Your task to perform on an android device: change alarm snooze length Image 0: 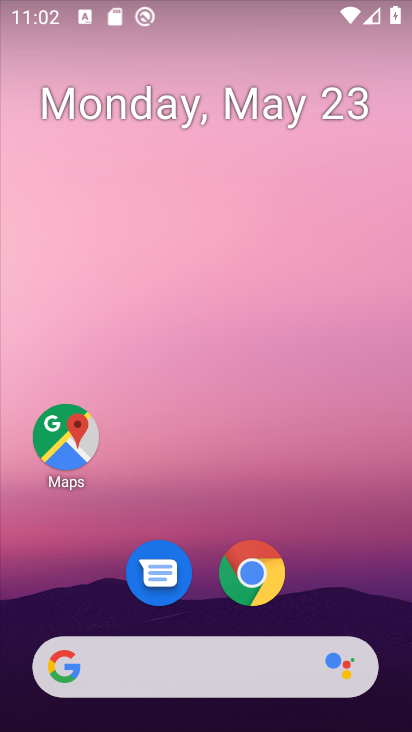
Step 0: drag from (185, 633) to (178, 48)
Your task to perform on an android device: change alarm snooze length Image 1: 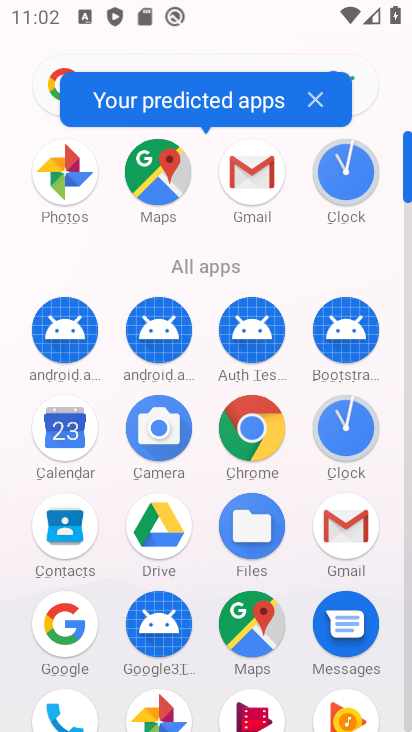
Step 1: click (334, 432)
Your task to perform on an android device: change alarm snooze length Image 2: 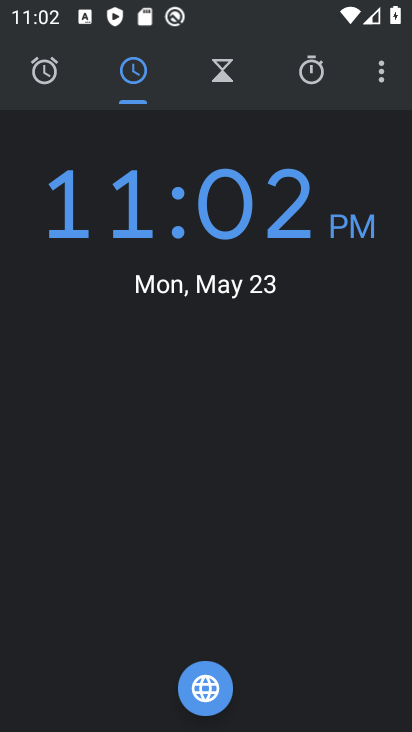
Step 2: click (375, 77)
Your task to perform on an android device: change alarm snooze length Image 3: 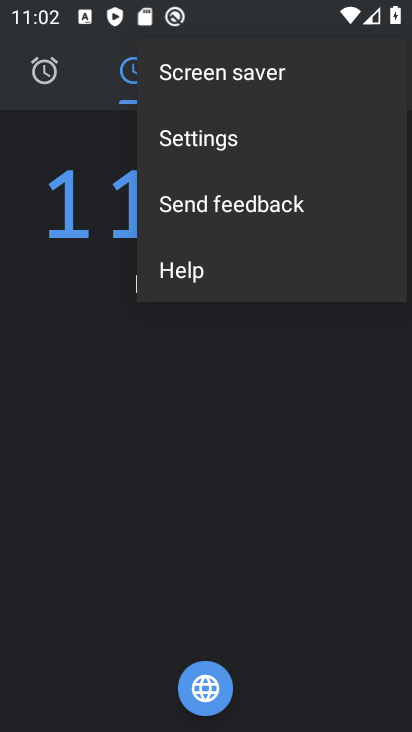
Step 3: click (202, 143)
Your task to perform on an android device: change alarm snooze length Image 4: 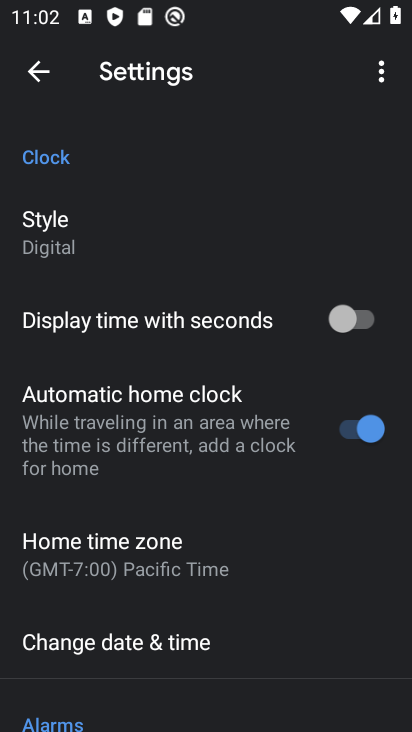
Step 4: drag from (132, 684) to (129, 181)
Your task to perform on an android device: change alarm snooze length Image 5: 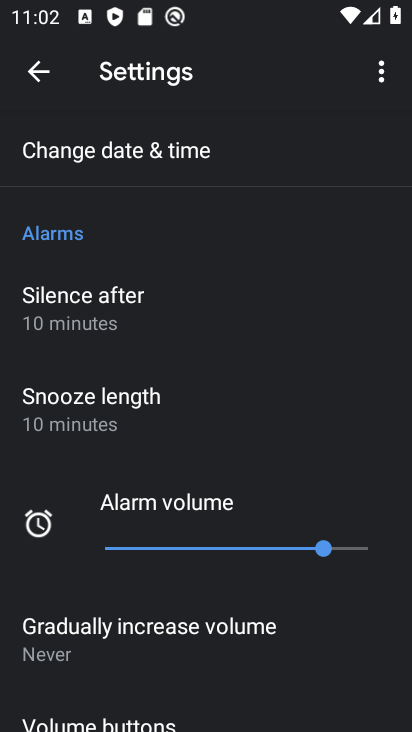
Step 5: click (107, 408)
Your task to perform on an android device: change alarm snooze length Image 6: 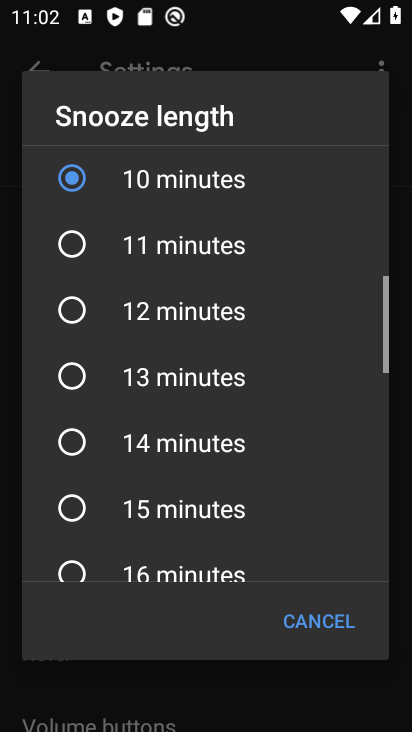
Step 6: click (166, 367)
Your task to perform on an android device: change alarm snooze length Image 7: 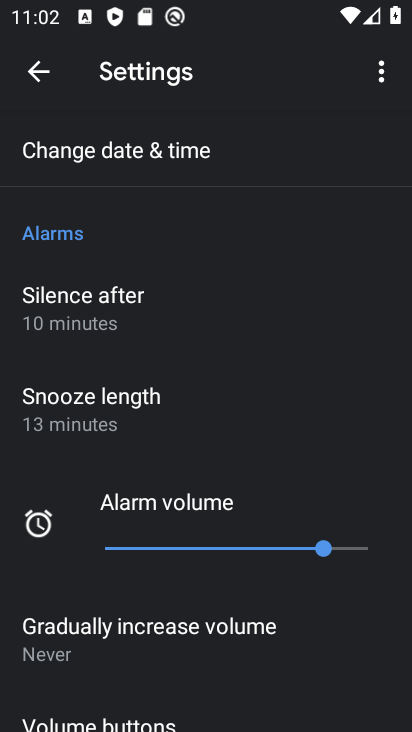
Step 7: task complete